Your task to perform on an android device: Open the Play Movies app and select the watchlist tab. Image 0: 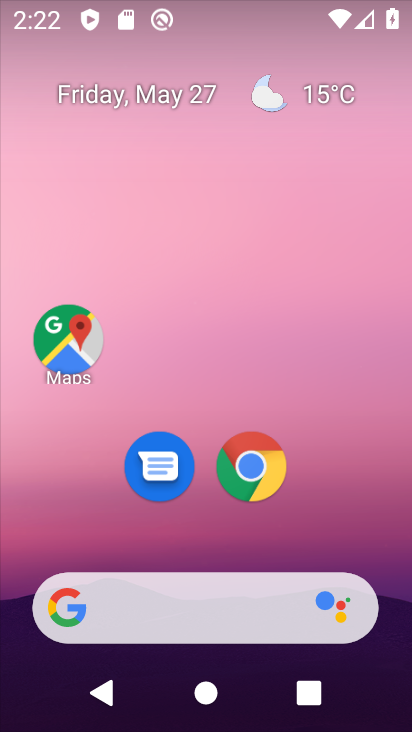
Step 0: press home button
Your task to perform on an android device: Open the Play Movies app and select the watchlist tab. Image 1: 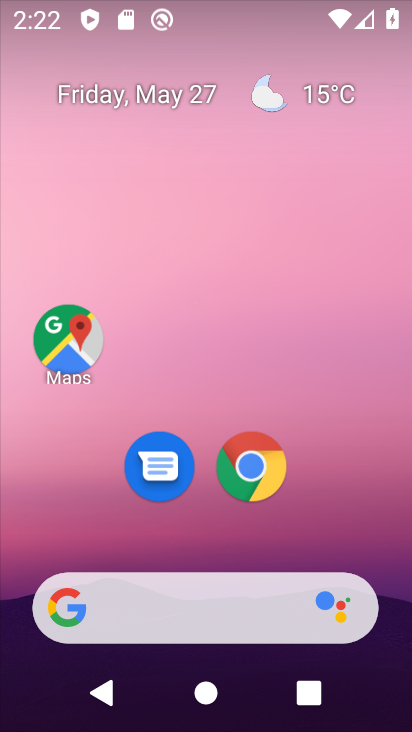
Step 1: drag from (387, 537) to (315, 200)
Your task to perform on an android device: Open the Play Movies app and select the watchlist tab. Image 2: 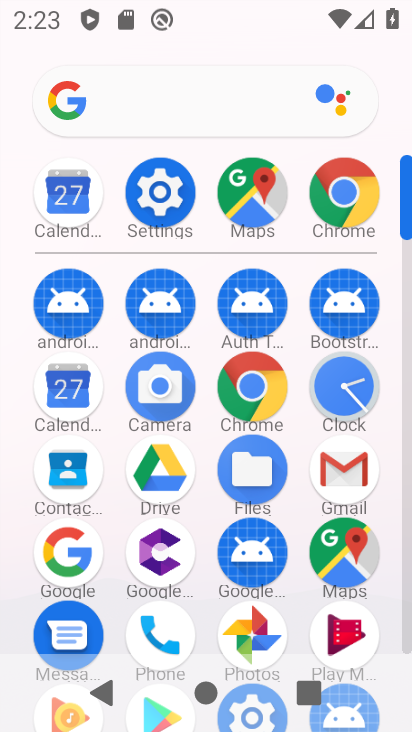
Step 2: click (352, 623)
Your task to perform on an android device: Open the Play Movies app and select the watchlist tab. Image 3: 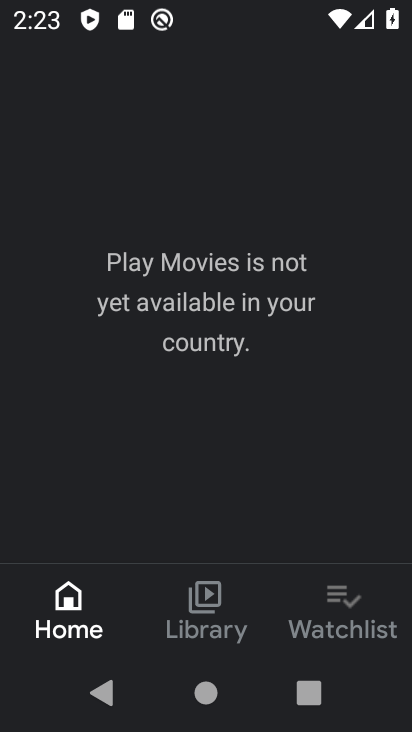
Step 3: click (339, 591)
Your task to perform on an android device: Open the Play Movies app and select the watchlist tab. Image 4: 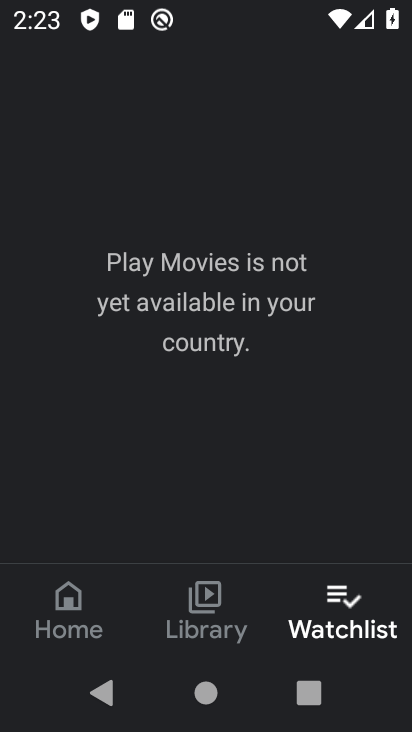
Step 4: task complete